Your task to perform on an android device: open wifi settings Image 0: 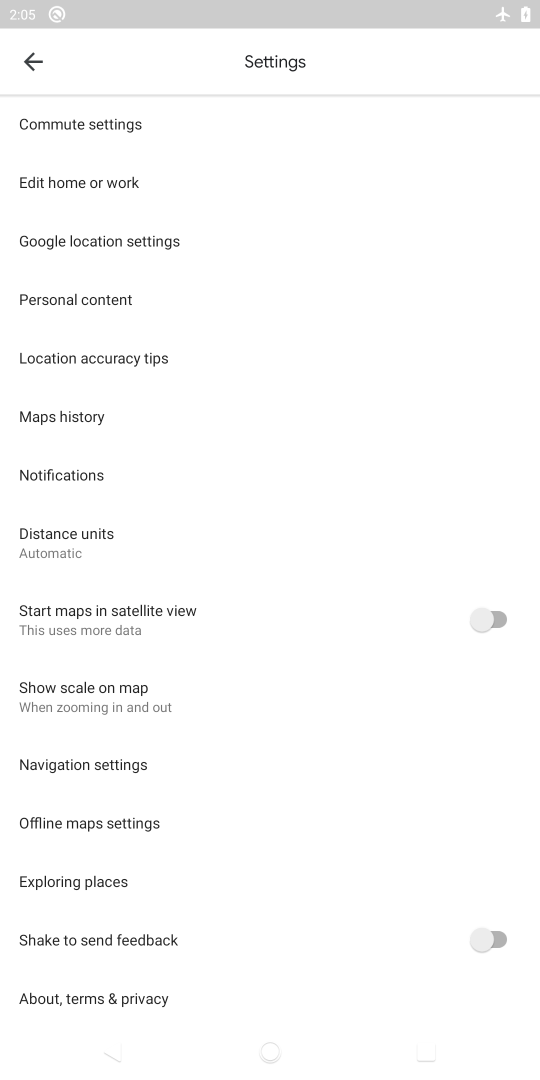
Step 0: press home button
Your task to perform on an android device: open wifi settings Image 1: 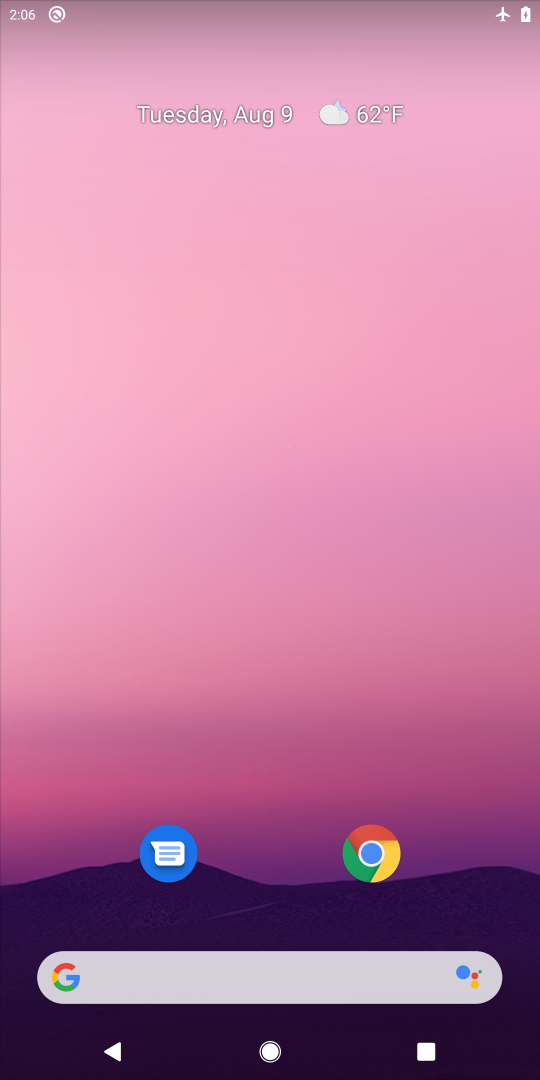
Step 1: drag from (266, 889) to (286, 181)
Your task to perform on an android device: open wifi settings Image 2: 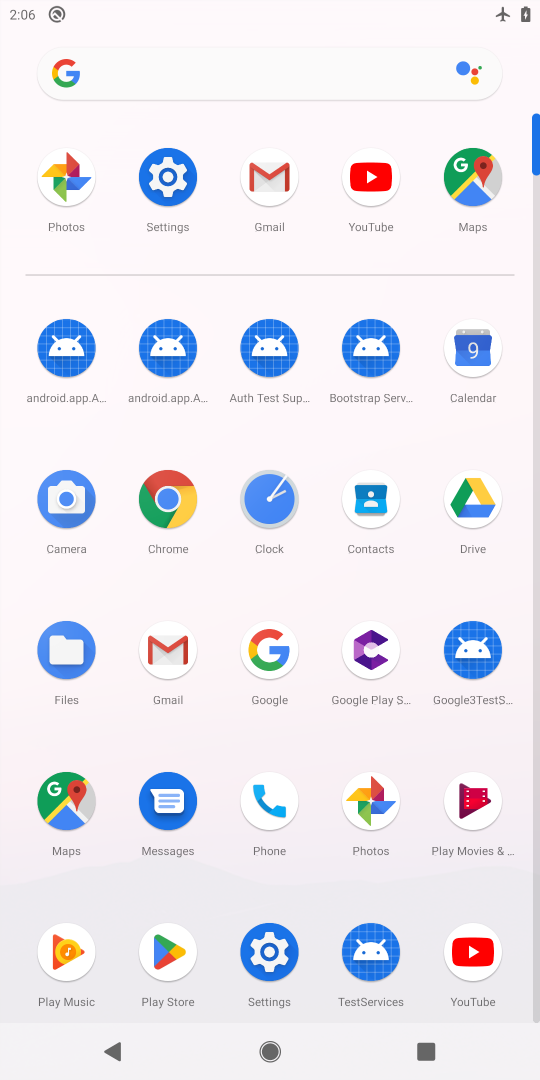
Step 2: click (173, 167)
Your task to perform on an android device: open wifi settings Image 3: 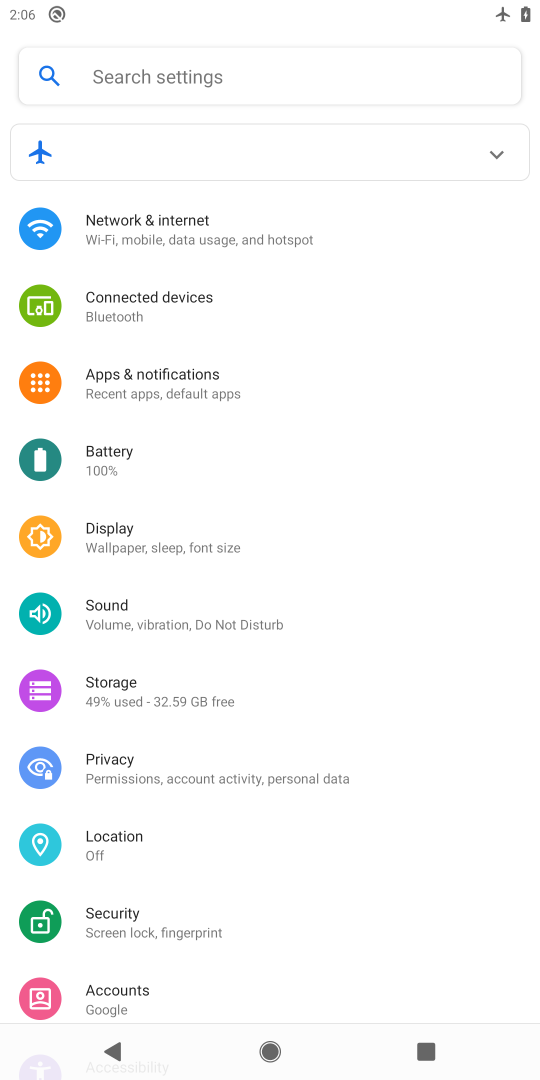
Step 3: click (163, 245)
Your task to perform on an android device: open wifi settings Image 4: 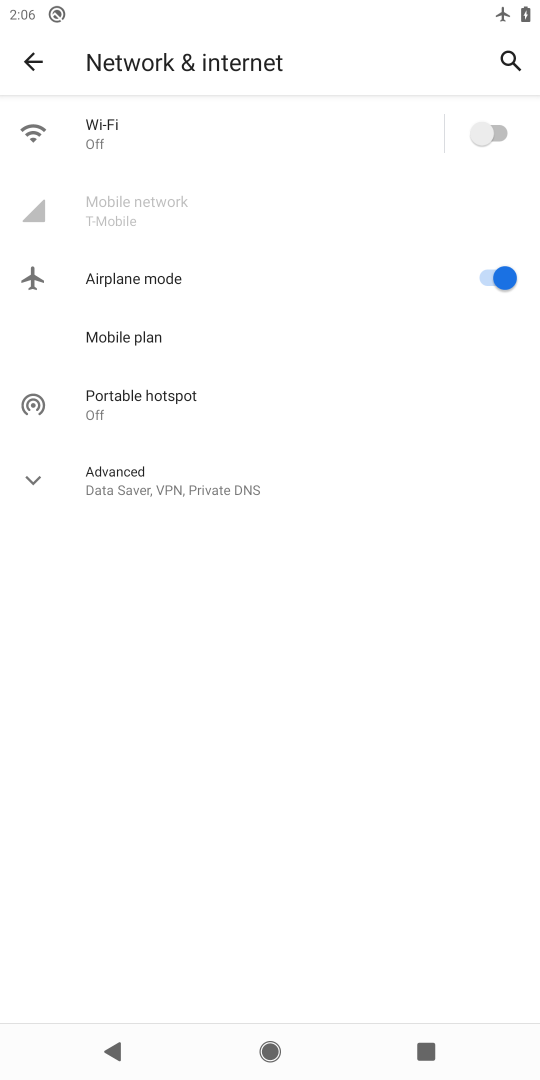
Step 4: task complete